Your task to perform on an android device: read, delete, or share a saved page in the chrome app Image 0: 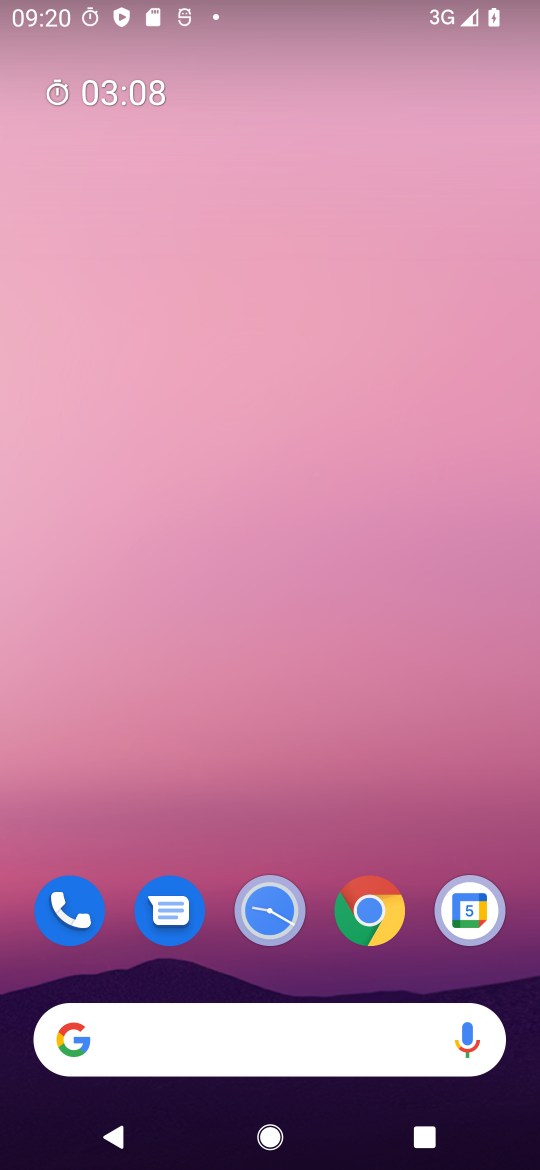
Step 0: drag from (240, 1009) to (372, 40)
Your task to perform on an android device: read, delete, or share a saved page in the chrome app Image 1: 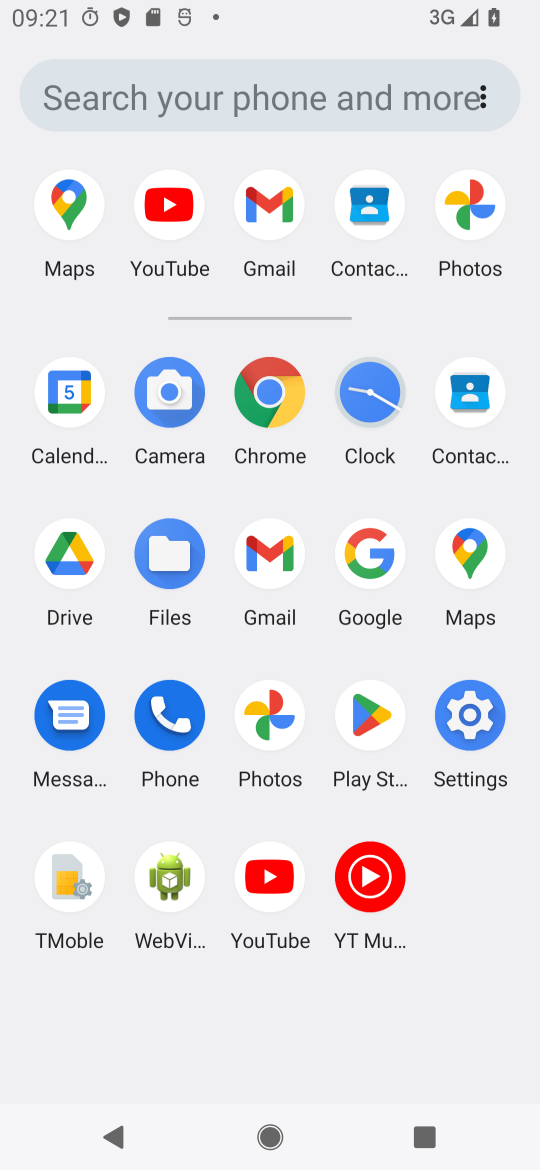
Step 1: click (263, 409)
Your task to perform on an android device: read, delete, or share a saved page in the chrome app Image 2: 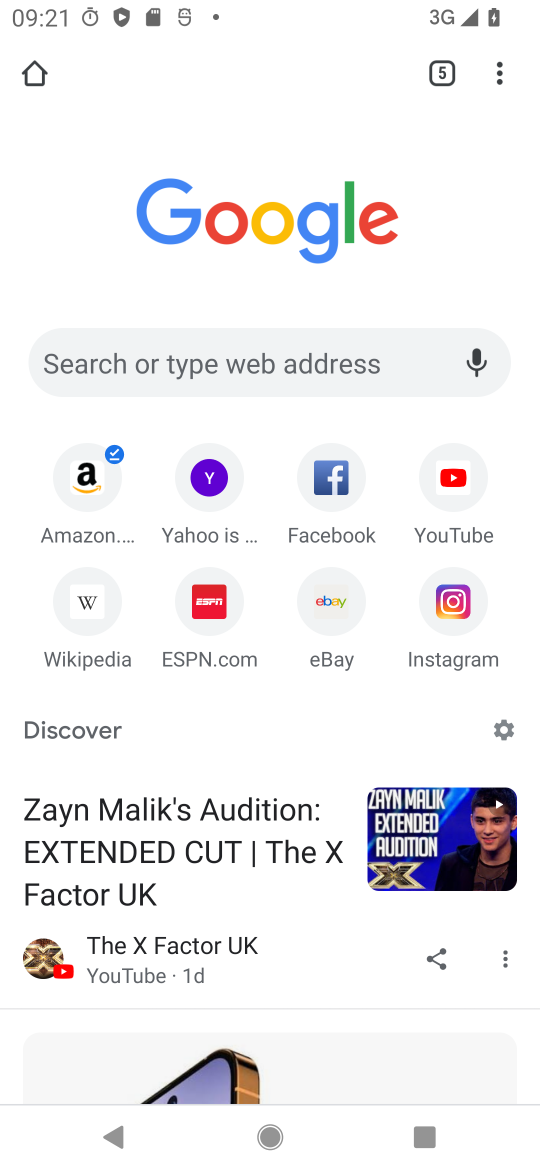
Step 2: click (490, 63)
Your task to perform on an android device: read, delete, or share a saved page in the chrome app Image 3: 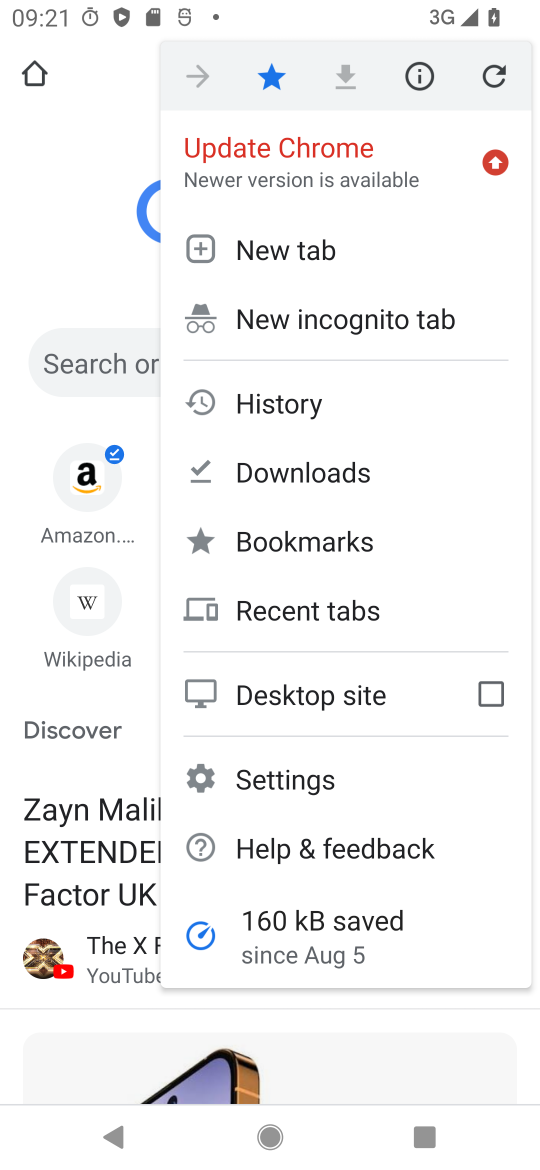
Step 3: click (302, 468)
Your task to perform on an android device: read, delete, or share a saved page in the chrome app Image 4: 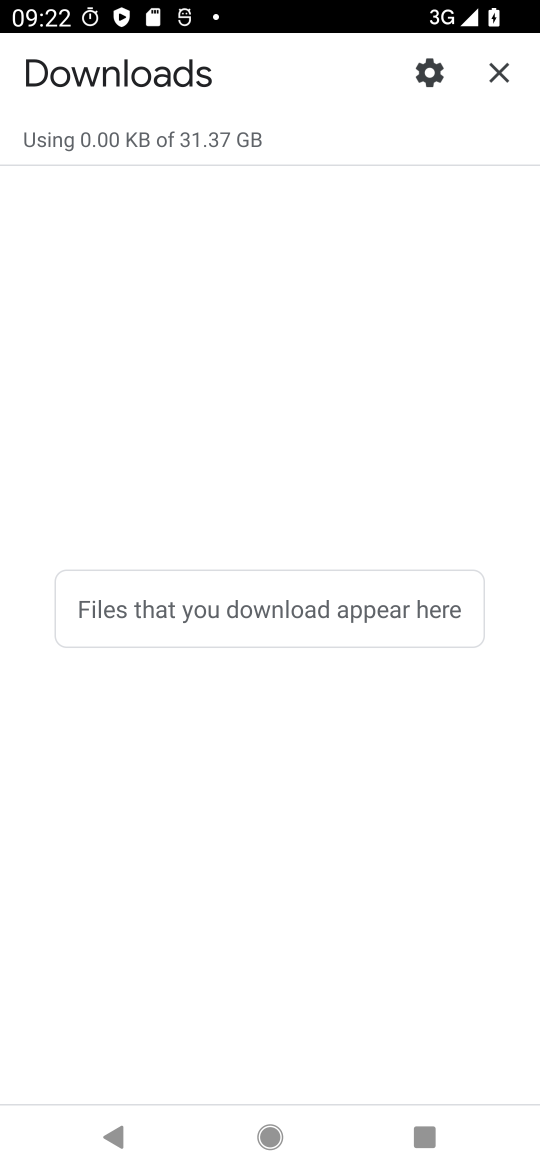
Step 4: task complete